Your task to perform on an android device: Go to wifi settings Image 0: 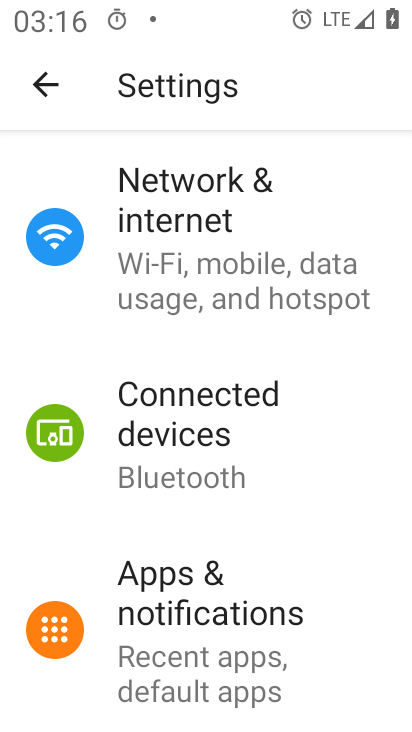
Step 0: click (206, 237)
Your task to perform on an android device: Go to wifi settings Image 1: 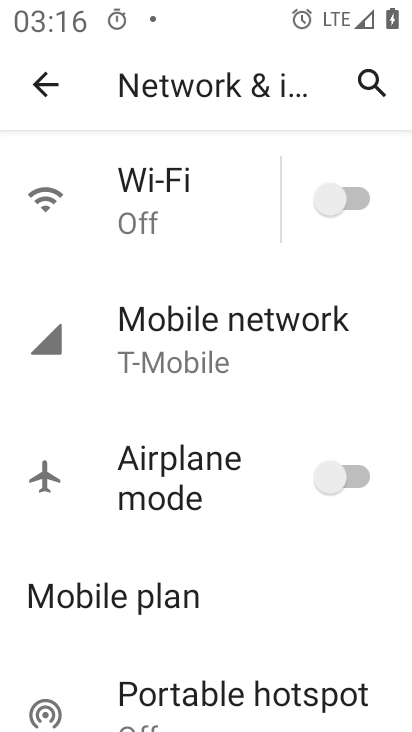
Step 1: drag from (185, 569) to (183, 324)
Your task to perform on an android device: Go to wifi settings Image 2: 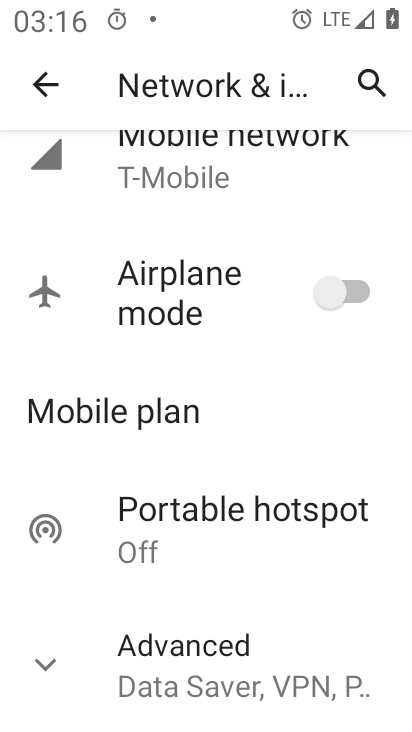
Step 2: drag from (213, 197) to (197, 589)
Your task to perform on an android device: Go to wifi settings Image 3: 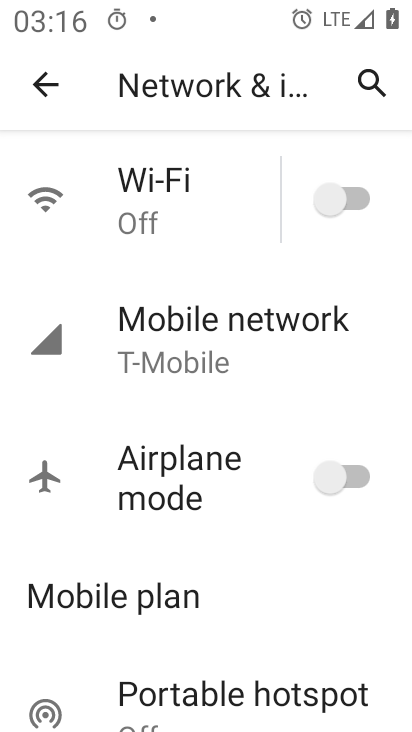
Step 3: click (147, 187)
Your task to perform on an android device: Go to wifi settings Image 4: 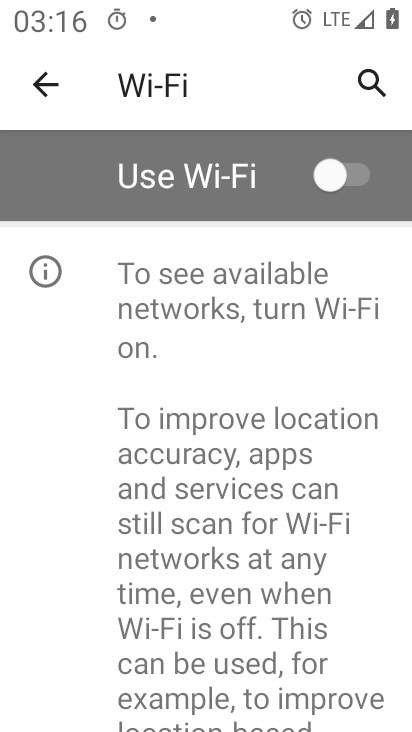
Step 4: task complete